Your task to perform on an android device: turn off javascript in the chrome app Image 0: 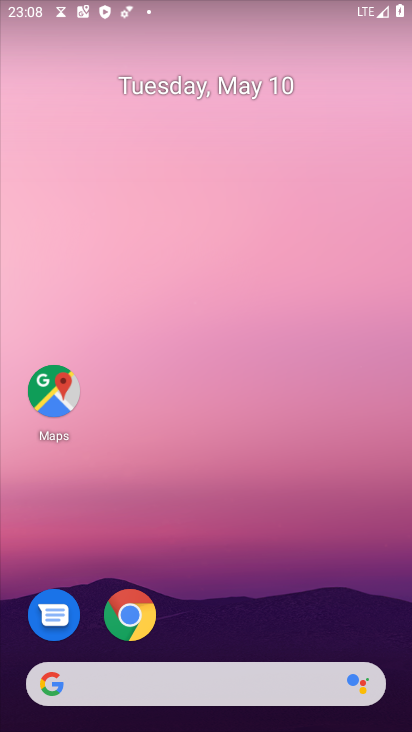
Step 0: click (135, 611)
Your task to perform on an android device: turn off javascript in the chrome app Image 1: 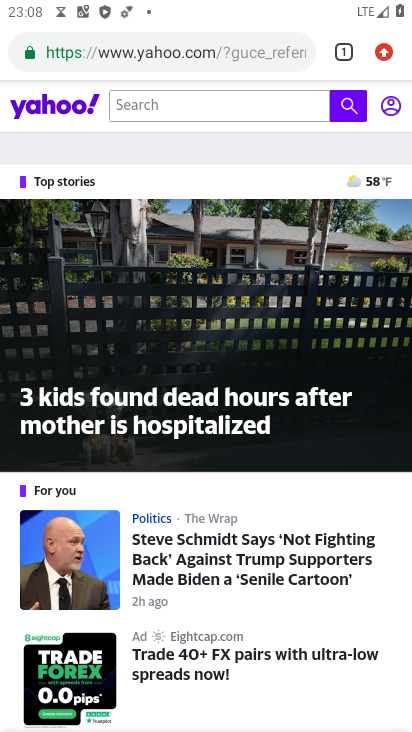
Step 1: click (386, 54)
Your task to perform on an android device: turn off javascript in the chrome app Image 2: 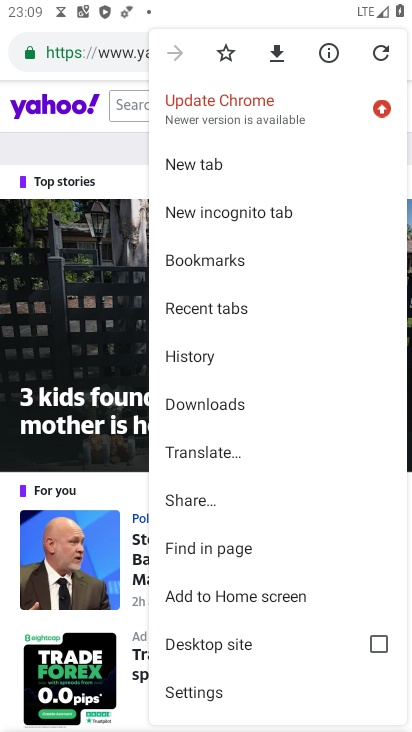
Step 2: click (201, 691)
Your task to perform on an android device: turn off javascript in the chrome app Image 3: 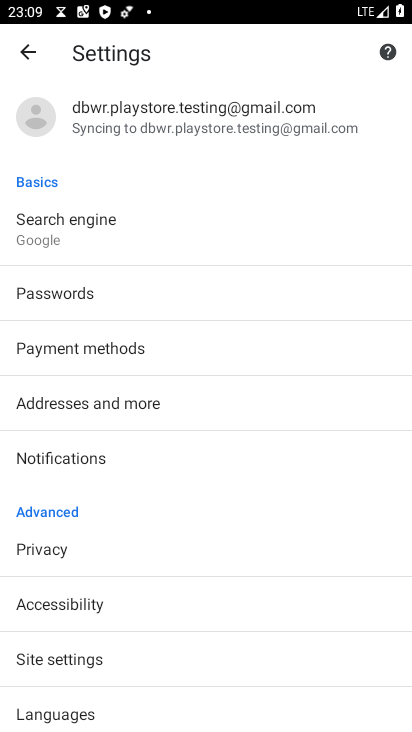
Step 3: drag from (158, 620) to (182, 526)
Your task to perform on an android device: turn off javascript in the chrome app Image 4: 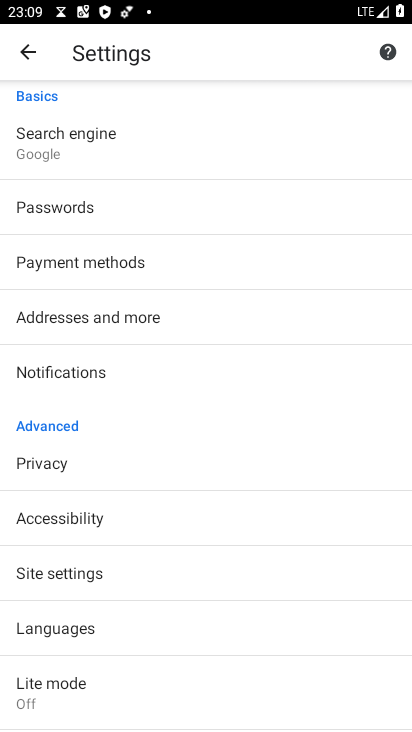
Step 4: click (65, 570)
Your task to perform on an android device: turn off javascript in the chrome app Image 5: 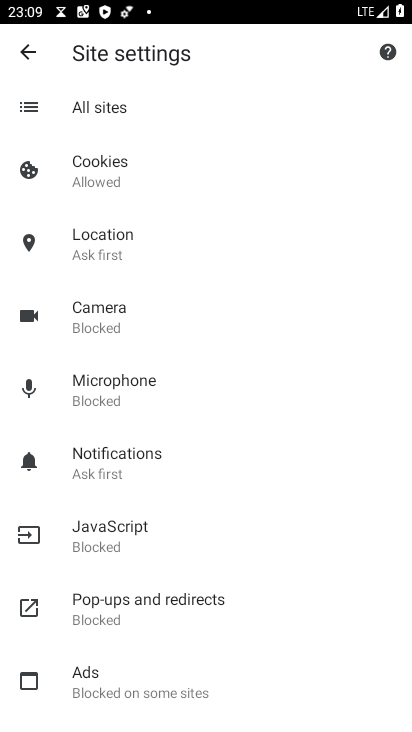
Step 5: click (132, 527)
Your task to perform on an android device: turn off javascript in the chrome app Image 6: 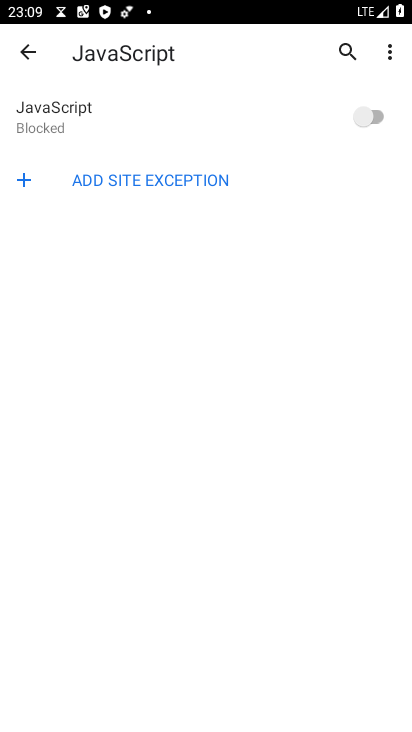
Step 6: task complete